Your task to perform on an android device: turn off improve location accuracy Image 0: 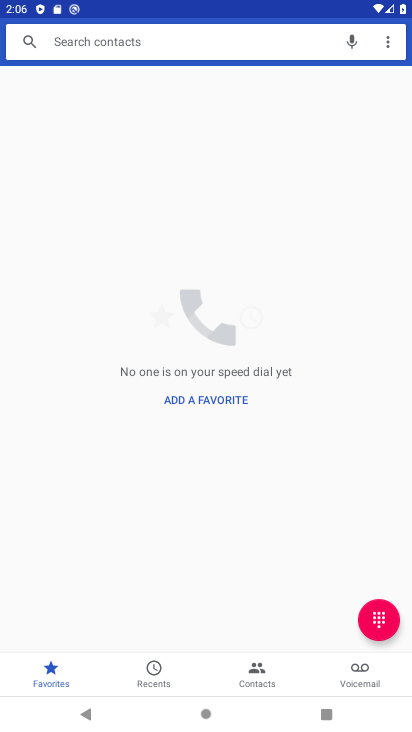
Step 0: press home button
Your task to perform on an android device: turn off improve location accuracy Image 1: 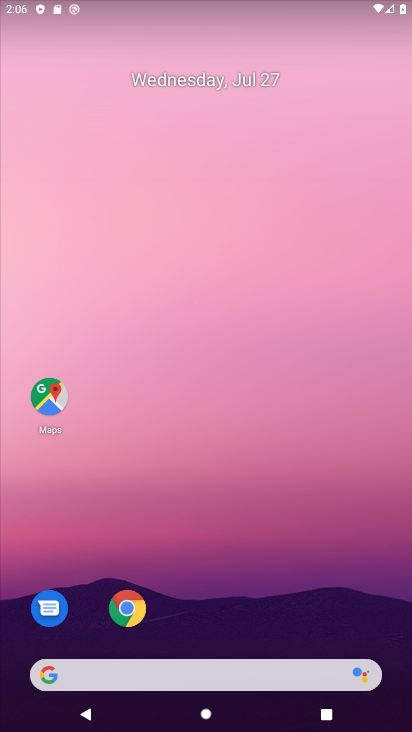
Step 1: click (169, 425)
Your task to perform on an android device: turn off improve location accuracy Image 2: 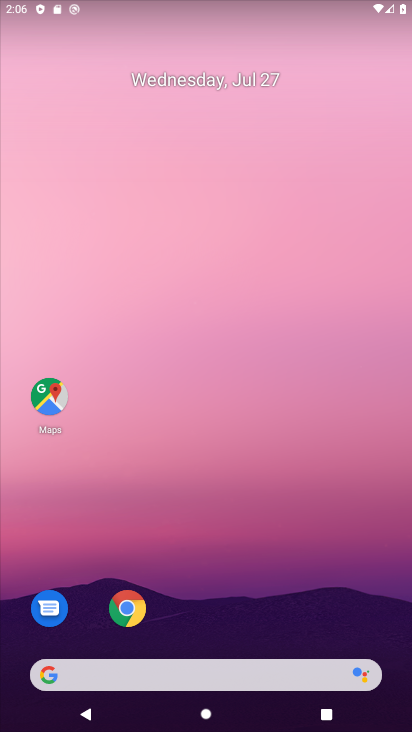
Step 2: click (163, 296)
Your task to perform on an android device: turn off improve location accuracy Image 3: 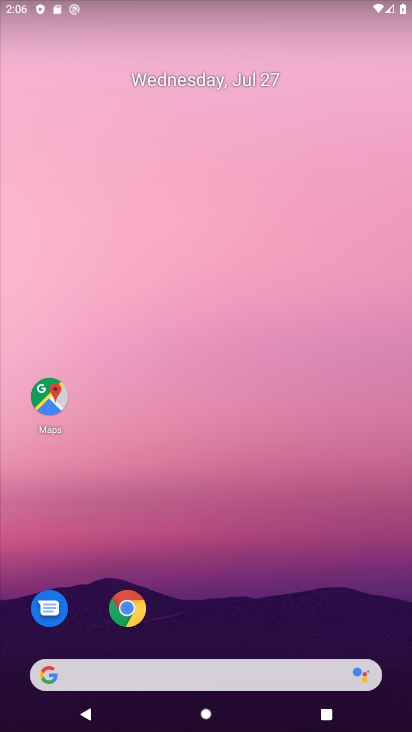
Step 3: drag from (236, 466) to (209, 201)
Your task to perform on an android device: turn off improve location accuracy Image 4: 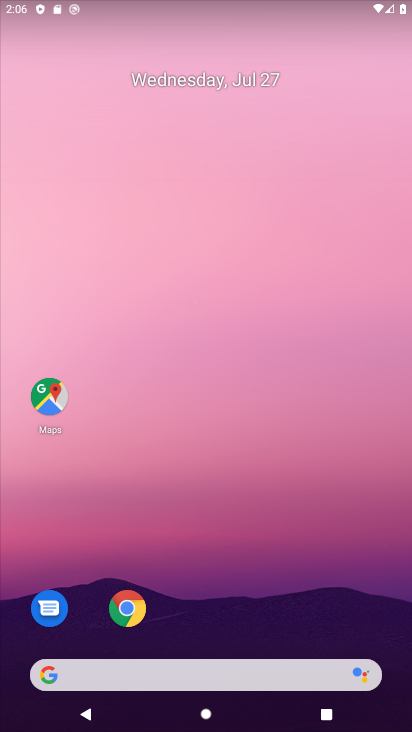
Step 4: drag from (232, 620) to (159, 12)
Your task to perform on an android device: turn off improve location accuracy Image 5: 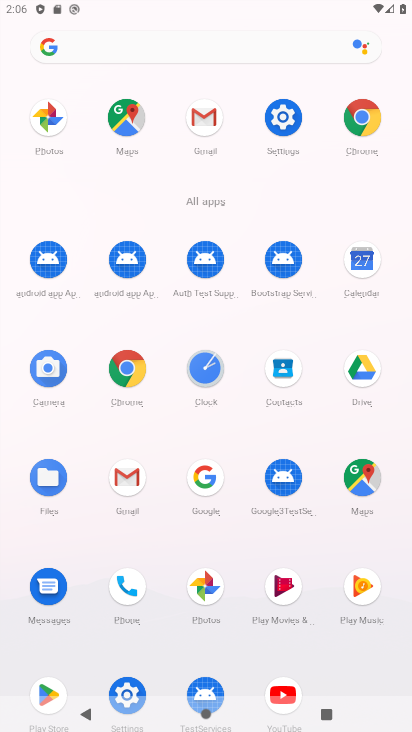
Step 5: click (284, 120)
Your task to perform on an android device: turn off improve location accuracy Image 6: 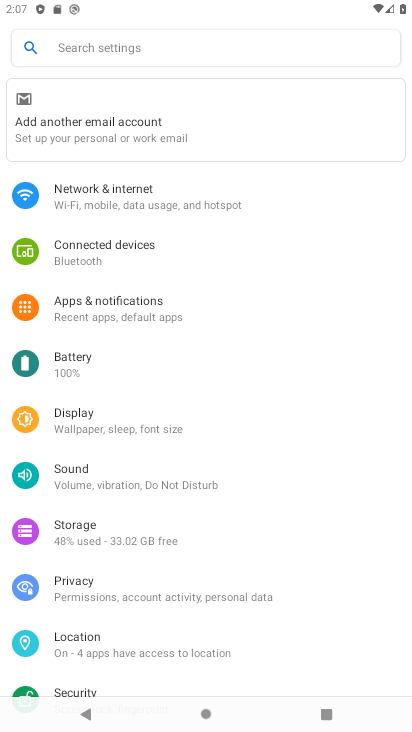
Step 6: click (100, 640)
Your task to perform on an android device: turn off improve location accuracy Image 7: 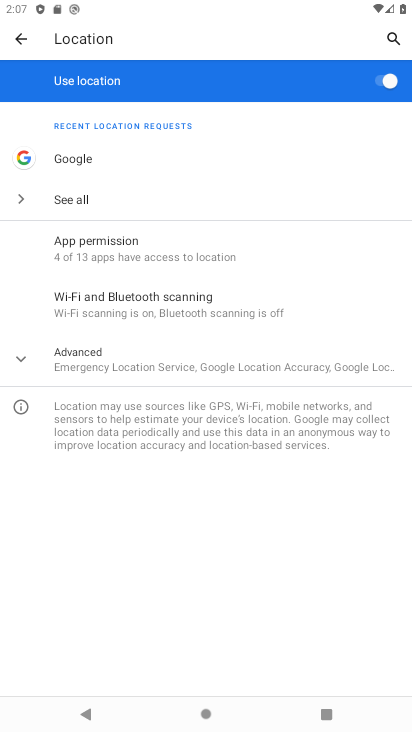
Step 7: click (21, 362)
Your task to perform on an android device: turn off improve location accuracy Image 8: 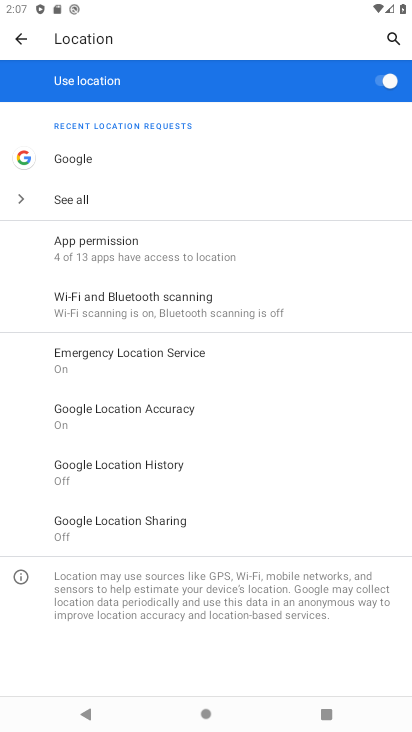
Step 8: click (154, 413)
Your task to perform on an android device: turn off improve location accuracy Image 9: 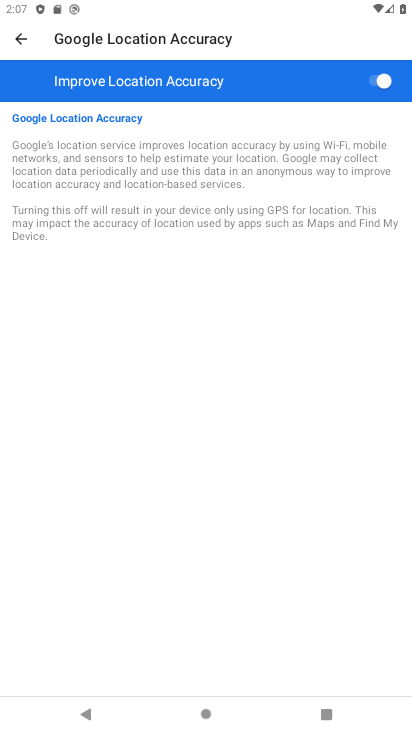
Step 9: click (384, 86)
Your task to perform on an android device: turn off improve location accuracy Image 10: 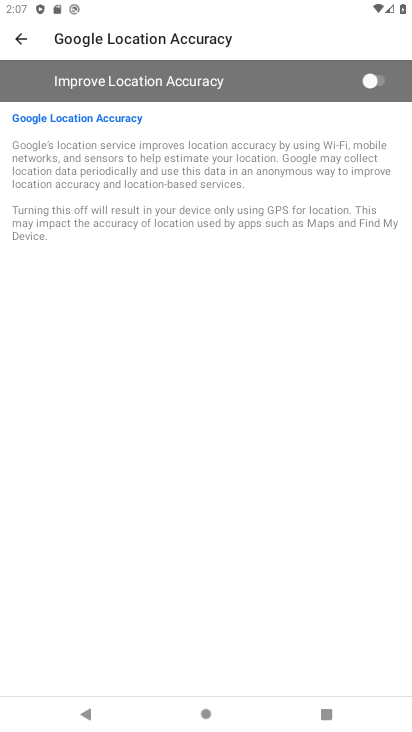
Step 10: task complete